Your task to perform on an android device: snooze an email in the gmail app Image 0: 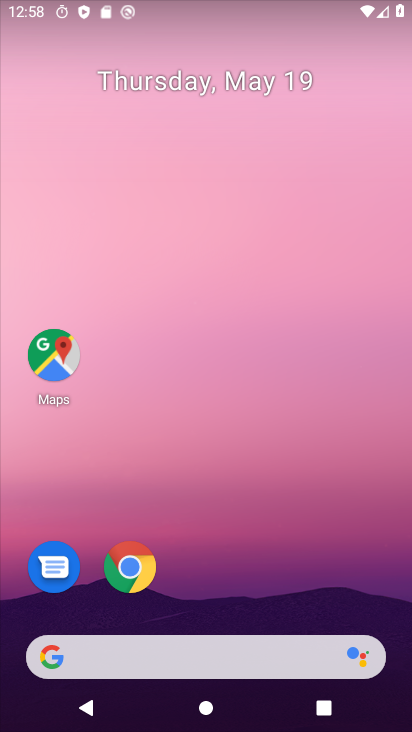
Step 0: drag from (147, 657) to (314, 244)
Your task to perform on an android device: snooze an email in the gmail app Image 1: 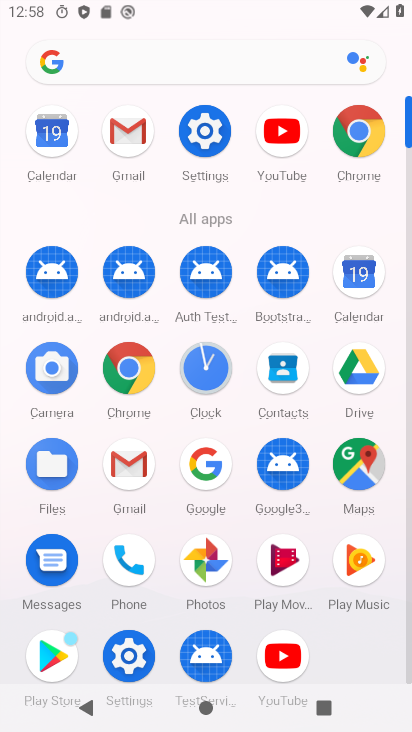
Step 1: click (120, 146)
Your task to perform on an android device: snooze an email in the gmail app Image 2: 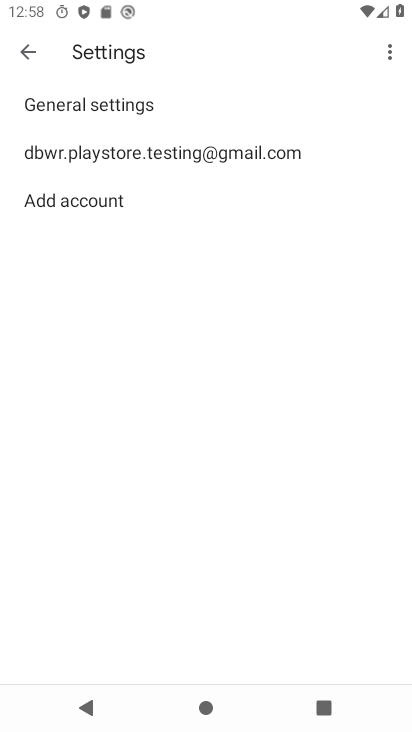
Step 2: click (34, 54)
Your task to perform on an android device: snooze an email in the gmail app Image 3: 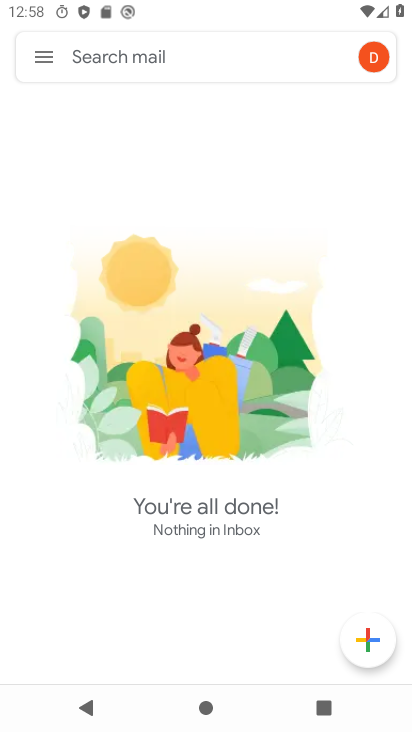
Step 3: task complete